Your task to perform on an android device: toggle sleep mode Image 0: 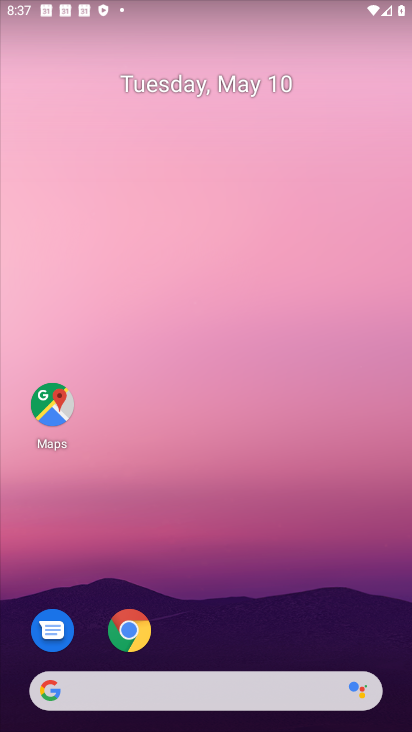
Step 0: click (235, 49)
Your task to perform on an android device: toggle sleep mode Image 1: 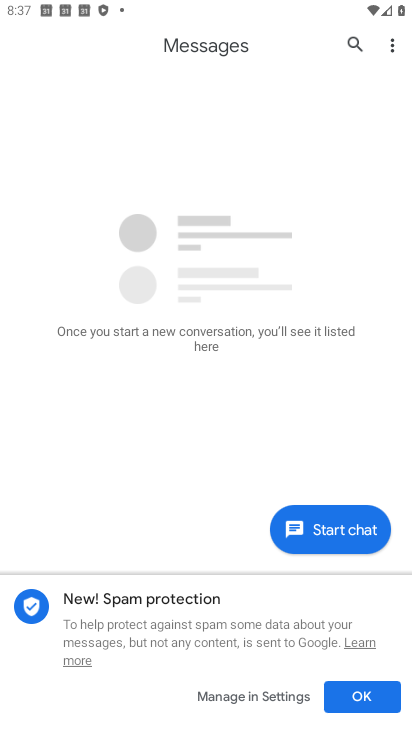
Step 1: press home button
Your task to perform on an android device: toggle sleep mode Image 2: 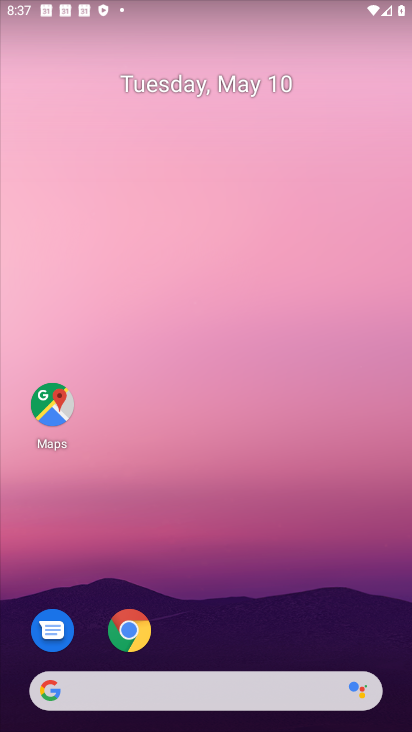
Step 2: drag from (145, 713) to (295, 67)
Your task to perform on an android device: toggle sleep mode Image 3: 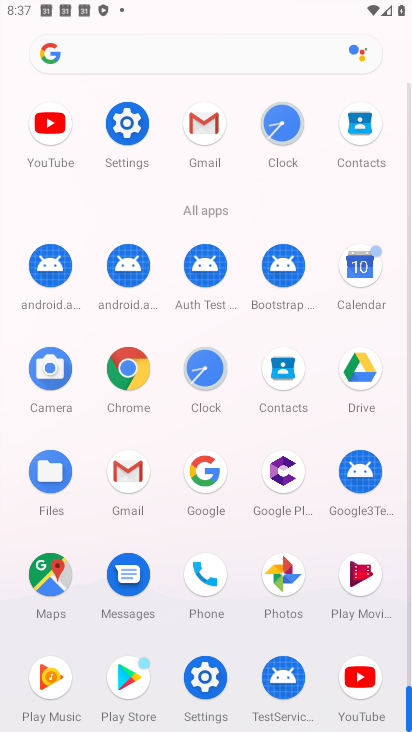
Step 3: click (132, 118)
Your task to perform on an android device: toggle sleep mode Image 4: 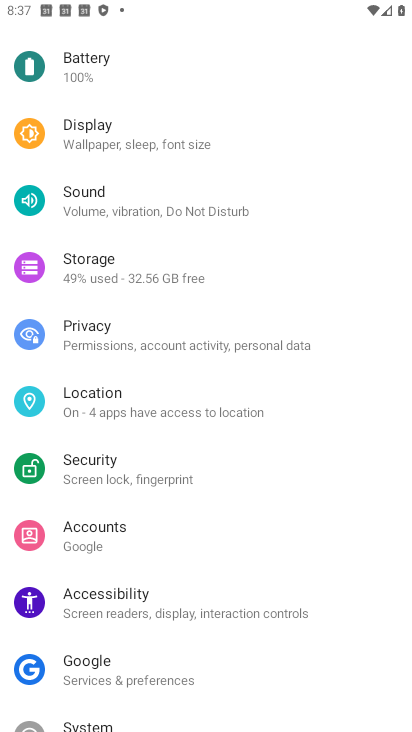
Step 4: click (199, 144)
Your task to perform on an android device: toggle sleep mode Image 5: 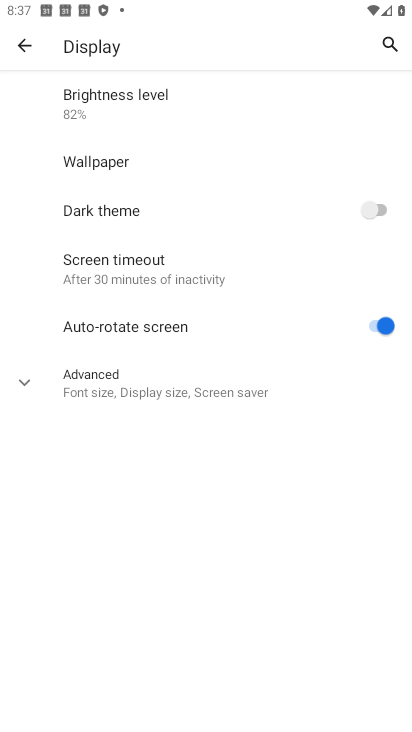
Step 5: task complete